Your task to perform on an android device: change your default location settings in chrome Image 0: 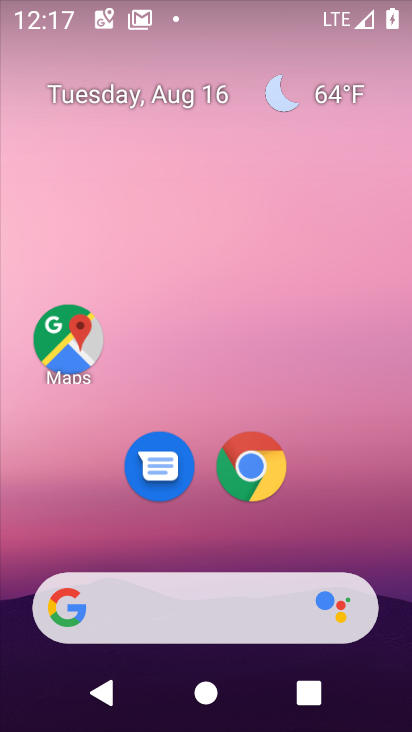
Step 0: drag from (239, 590) to (235, 154)
Your task to perform on an android device: change your default location settings in chrome Image 1: 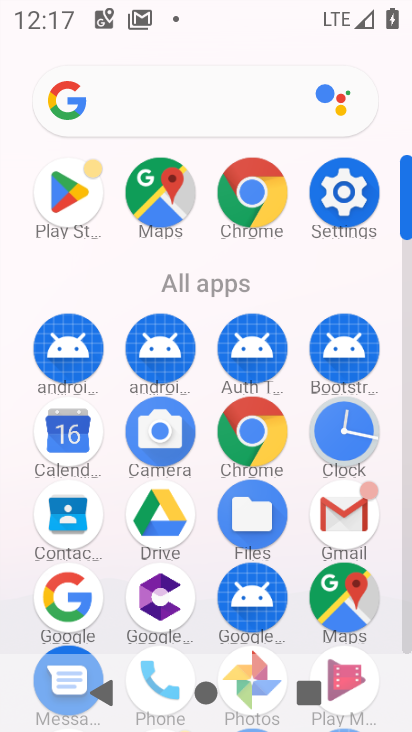
Step 1: click (239, 423)
Your task to perform on an android device: change your default location settings in chrome Image 2: 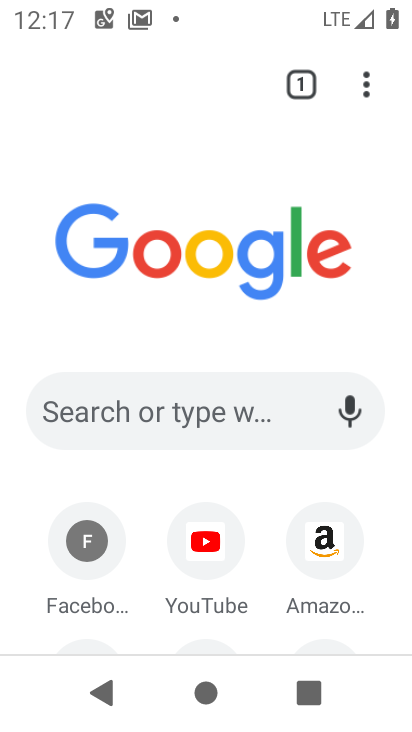
Step 2: click (358, 90)
Your task to perform on an android device: change your default location settings in chrome Image 3: 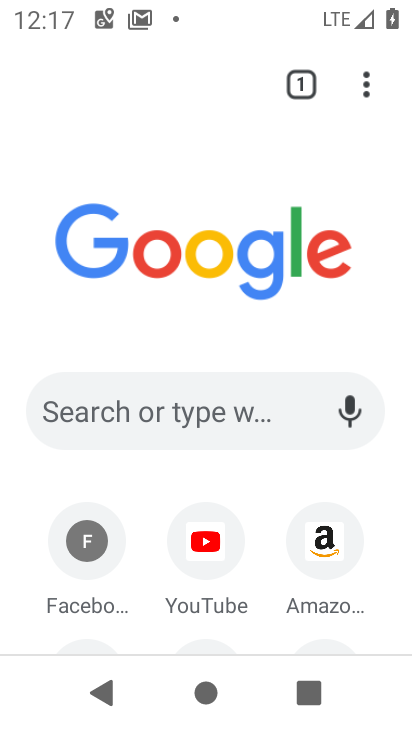
Step 3: click (372, 90)
Your task to perform on an android device: change your default location settings in chrome Image 4: 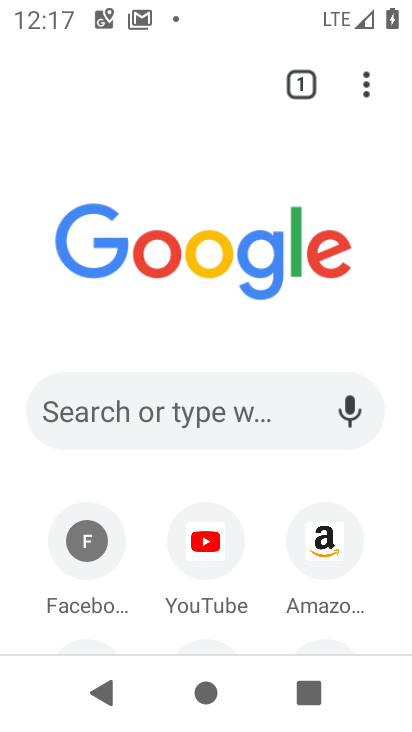
Step 4: click (372, 90)
Your task to perform on an android device: change your default location settings in chrome Image 5: 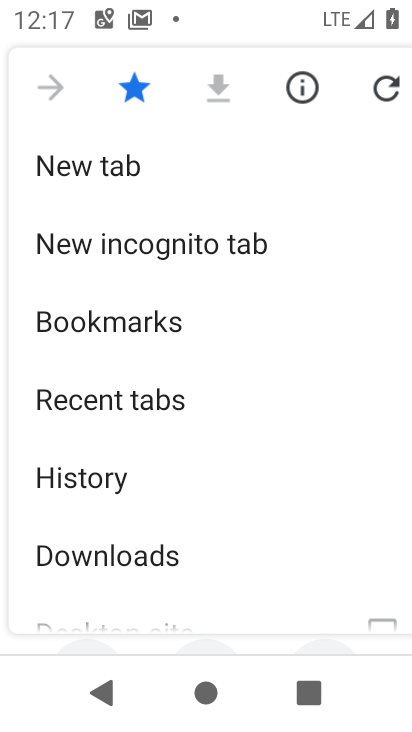
Step 5: drag from (163, 556) to (193, 97)
Your task to perform on an android device: change your default location settings in chrome Image 6: 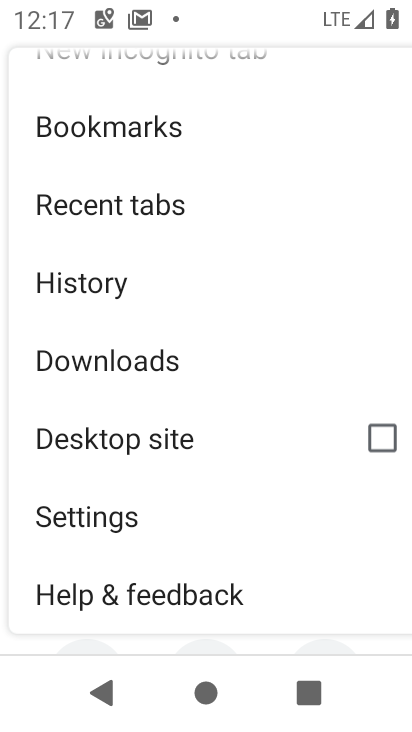
Step 6: click (107, 510)
Your task to perform on an android device: change your default location settings in chrome Image 7: 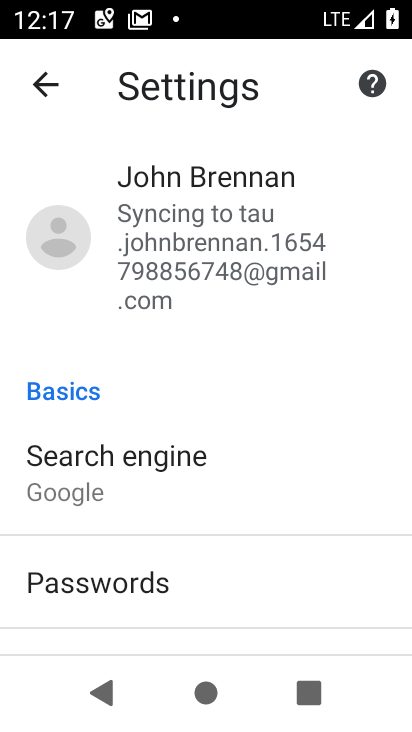
Step 7: drag from (173, 571) to (255, 235)
Your task to perform on an android device: change your default location settings in chrome Image 8: 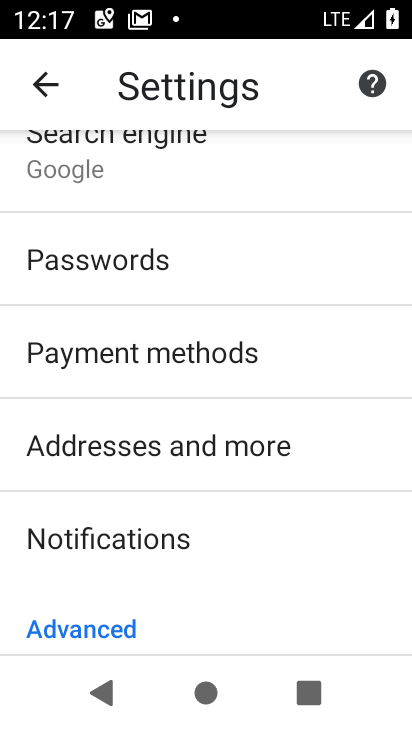
Step 8: drag from (135, 588) to (228, 224)
Your task to perform on an android device: change your default location settings in chrome Image 9: 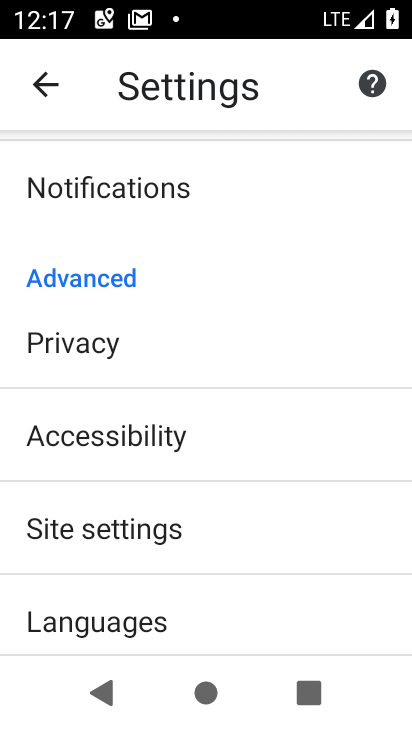
Step 9: click (124, 628)
Your task to perform on an android device: change your default location settings in chrome Image 10: 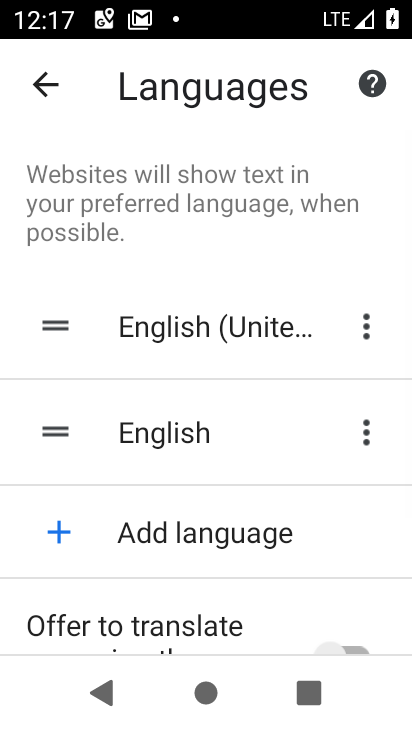
Step 10: drag from (160, 623) to (200, 380)
Your task to perform on an android device: change your default location settings in chrome Image 11: 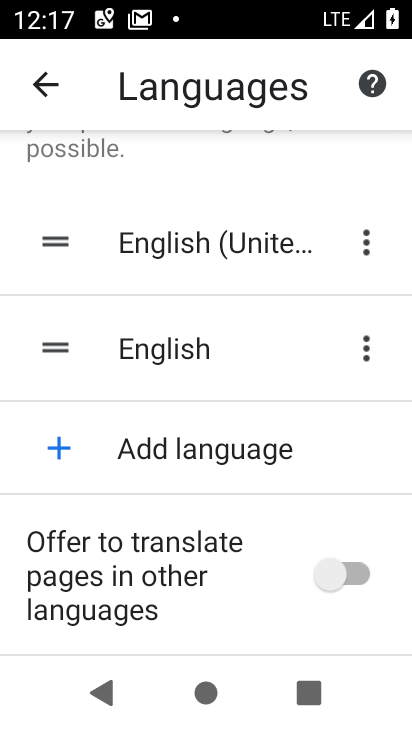
Step 11: click (45, 93)
Your task to perform on an android device: change your default location settings in chrome Image 12: 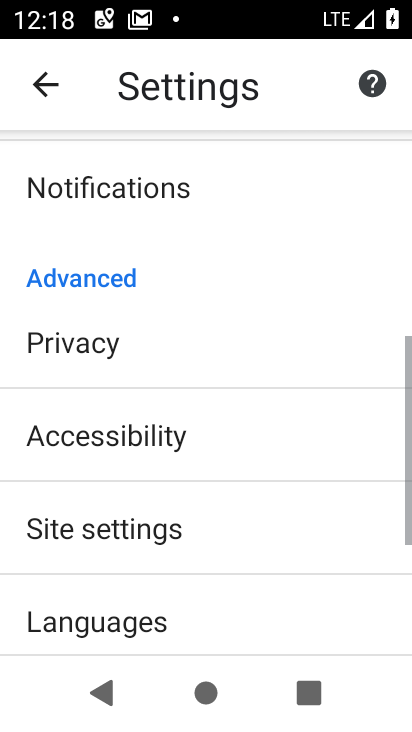
Step 12: drag from (156, 581) to (234, 272)
Your task to perform on an android device: change your default location settings in chrome Image 13: 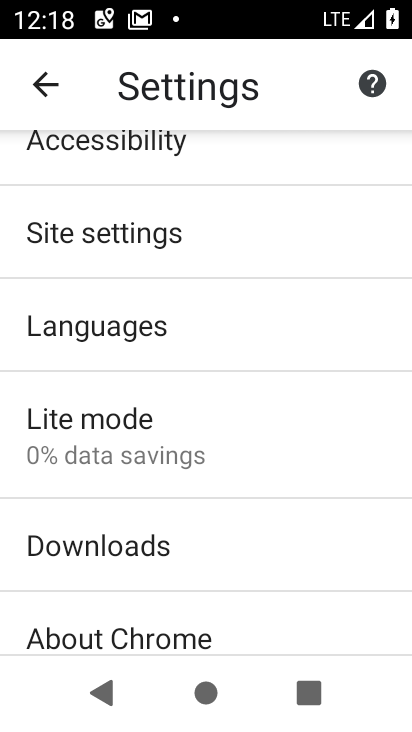
Step 13: click (154, 214)
Your task to perform on an android device: change your default location settings in chrome Image 14: 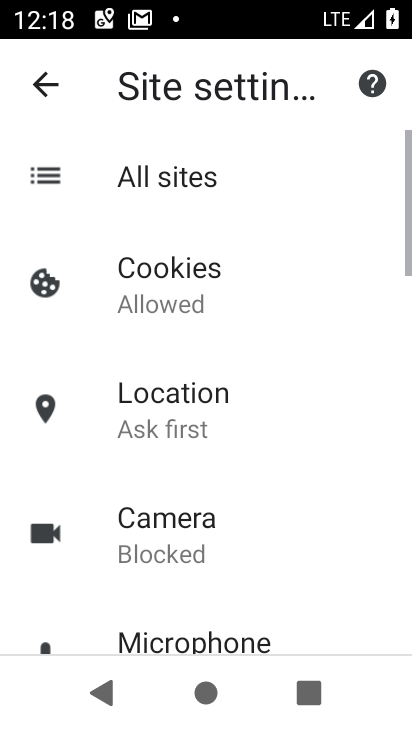
Step 14: click (183, 415)
Your task to perform on an android device: change your default location settings in chrome Image 15: 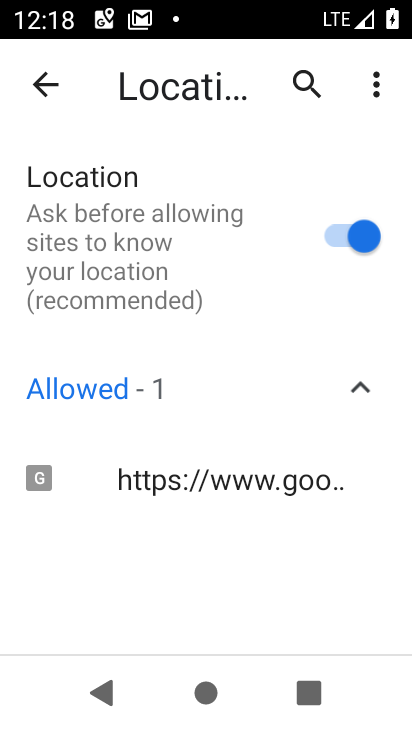
Step 15: click (358, 241)
Your task to perform on an android device: change your default location settings in chrome Image 16: 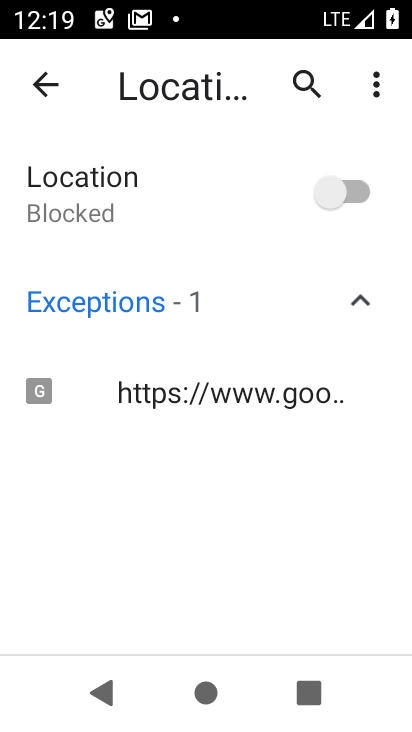
Step 16: task complete